Your task to perform on an android device: find photos in the google photos app Image 0: 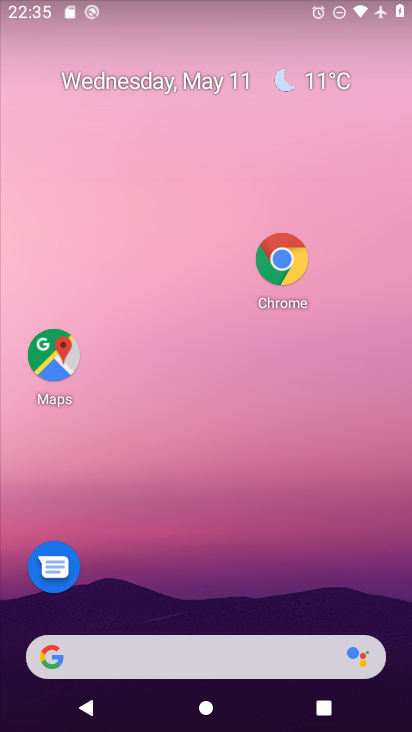
Step 0: drag from (162, 650) to (323, 187)
Your task to perform on an android device: find photos in the google photos app Image 1: 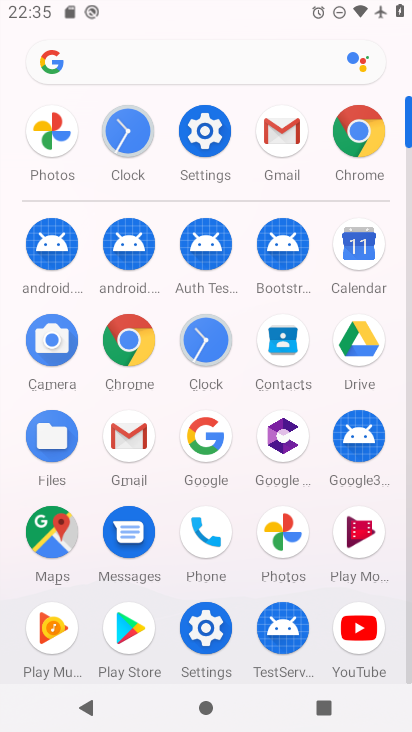
Step 1: click (284, 525)
Your task to perform on an android device: find photos in the google photos app Image 2: 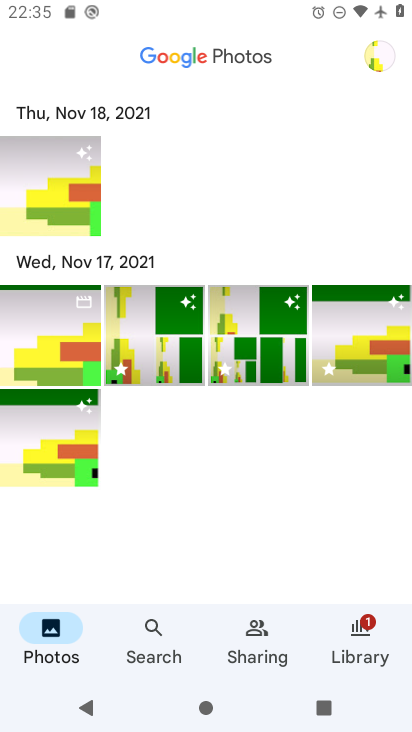
Step 2: task complete